Your task to perform on an android device: Open the stopwatch Image 0: 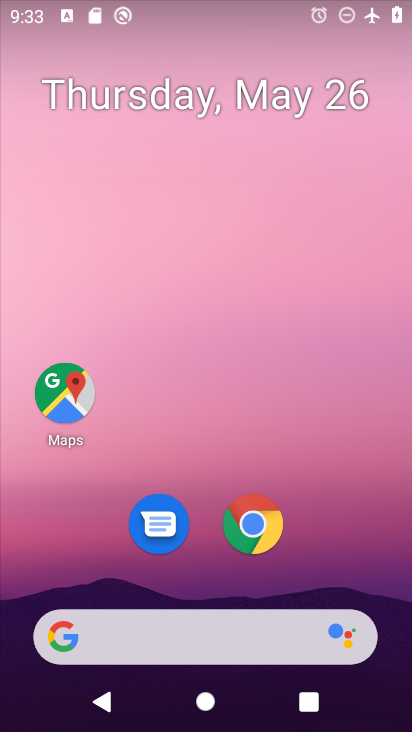
Step 0: drag from (316, 544) to (311, 18)
Your task to perform on an android device: Open the stopwatch Image 1: 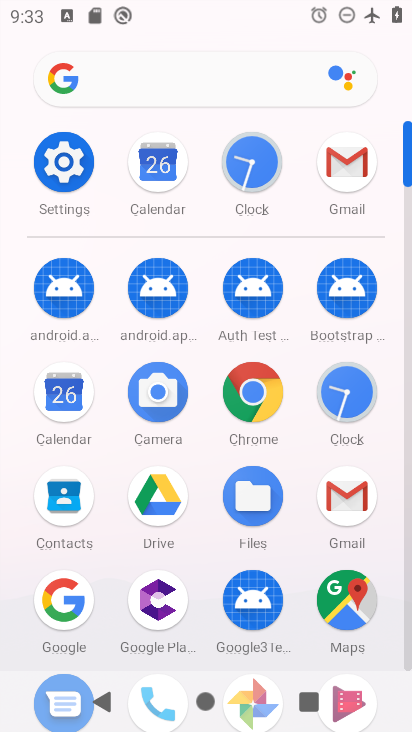
Step 1: click (258, 147)
Your task to perform on an android device: Open the stopwatch Image 2: 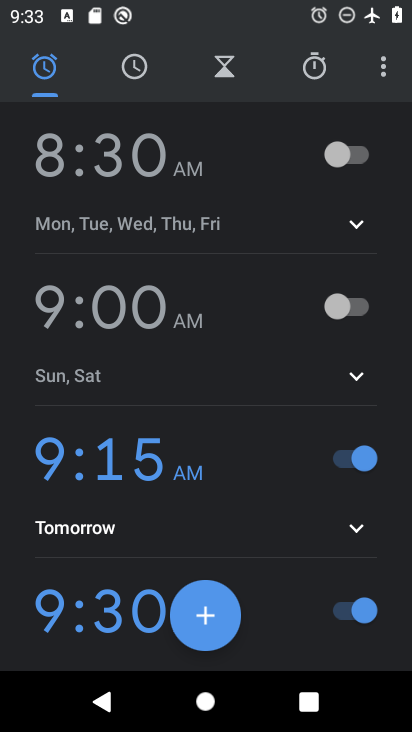
Step 2: click (309, 68)
Your task to perform on an android device: Open the stopwatch Image 3: 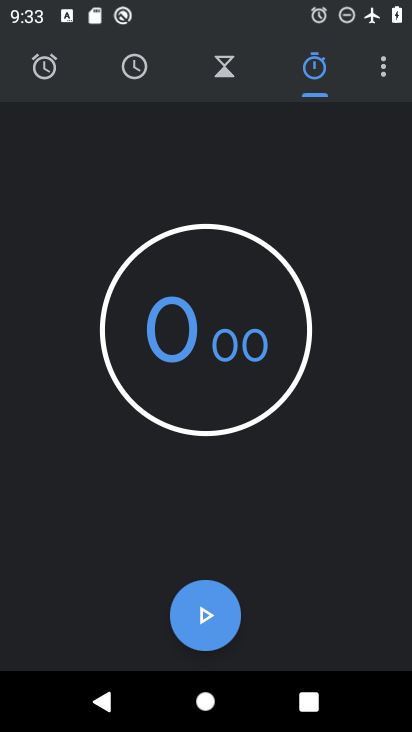
Step 3: task complete